Your task to perform on an android device: Search for Mexican restaurants on Maps Image 0: 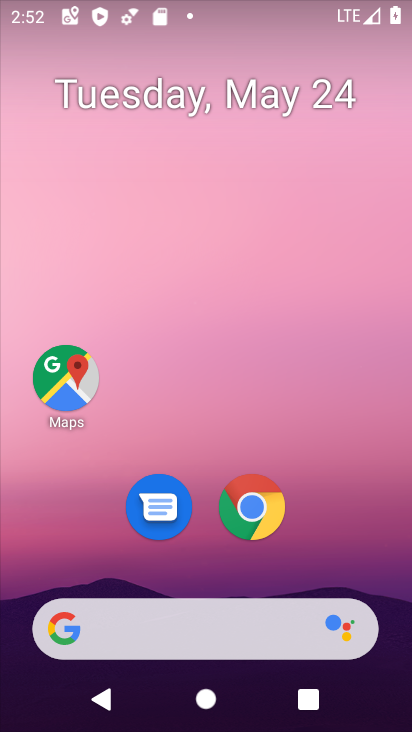
Step 0: click (54, 377)
Your task to perform on an android device: Search for Mexican restaurants on Maps Image 1: 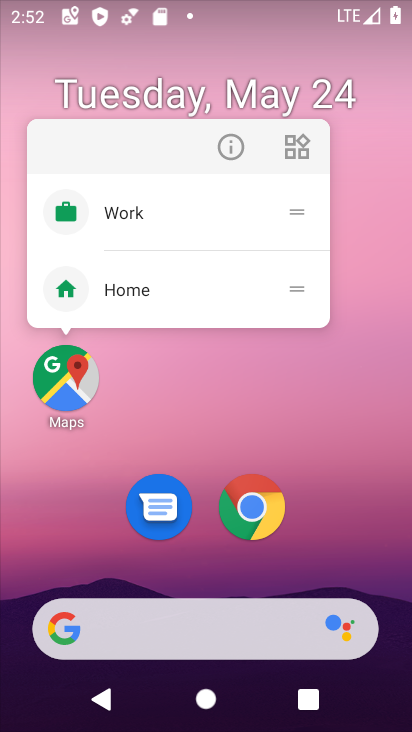
Step 1: click (63, 382)
Your task to perform on an android device: Search for Mexican restaurants on Maps Image 2: 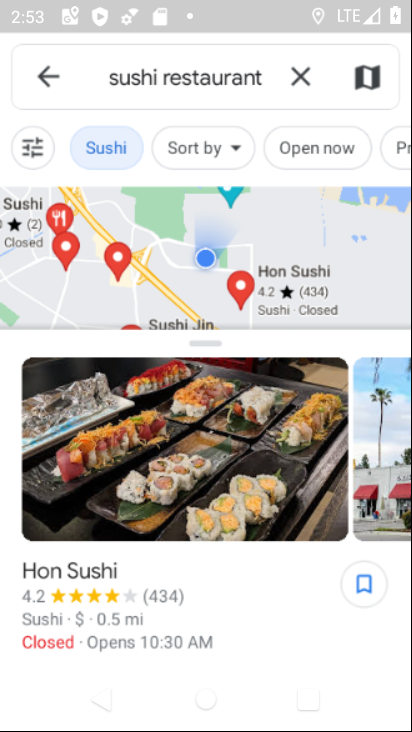
Step 2: click (295, 75)
Your task to perform on an android device: Search for Mexican restaurants on Maps Image 3: 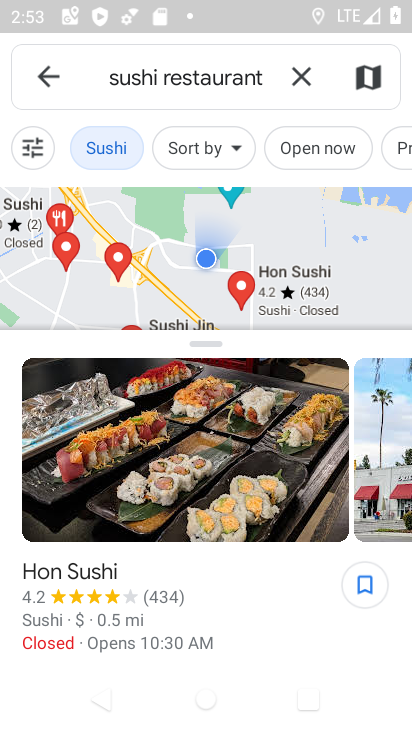
Step 3: click (303, 73)
Your task to perform on an android device: Search for Mexican restaurants on Maps Image 4: 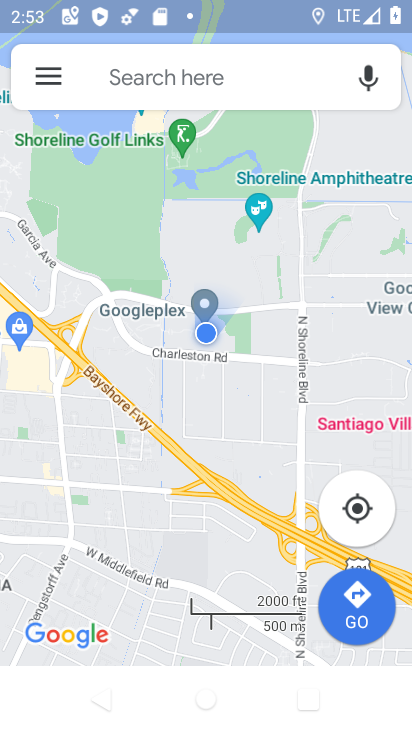
Step 4: click (164, 74)
Your task to perform on an android device: Search for Mexican restaurants on Maps Image 5: 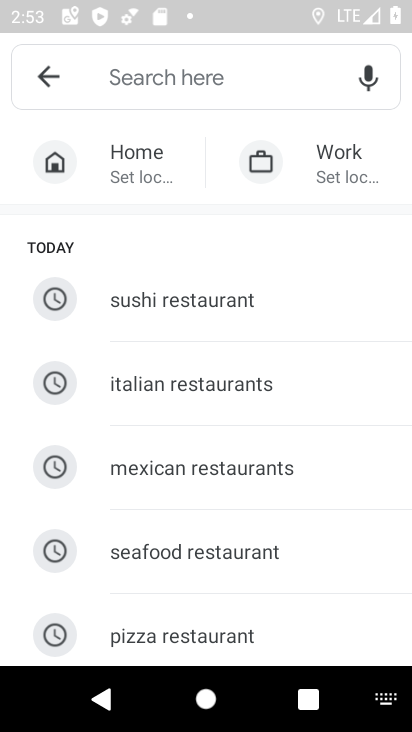
Step 5: click (186, 469)
Your task to perform on an android device: Search for Mexican restaurants on Maps Image 6: 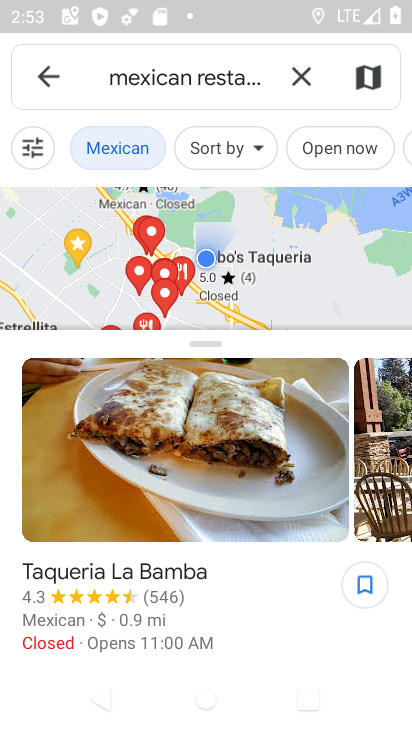
Step 6: task complete